Your task to perform on an android device: open app "Duolingo: language lessons" Image 0: 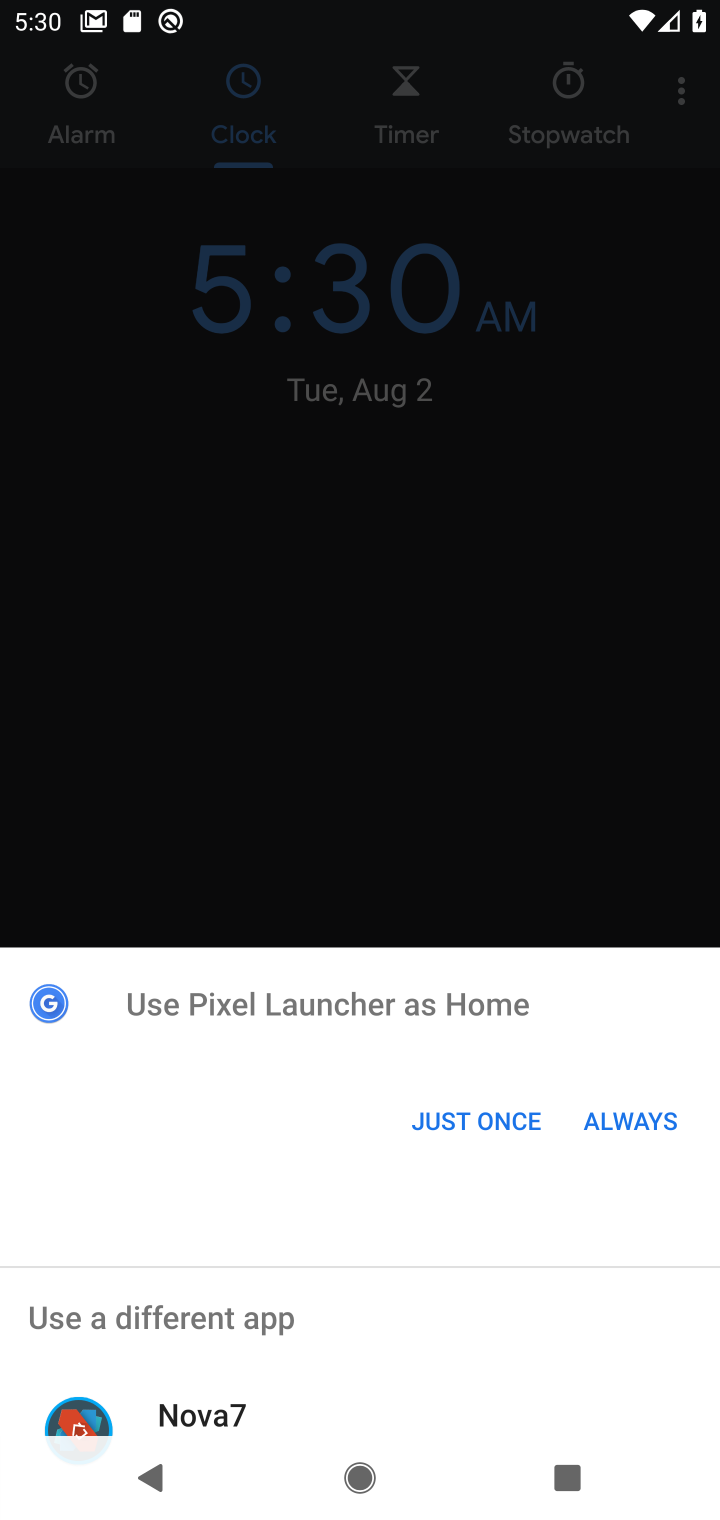
Step 0: drag from (327, 1025) to (407, 591)
Your task to perform on an android device: open app "Duolingo: language lessons" Image 1: 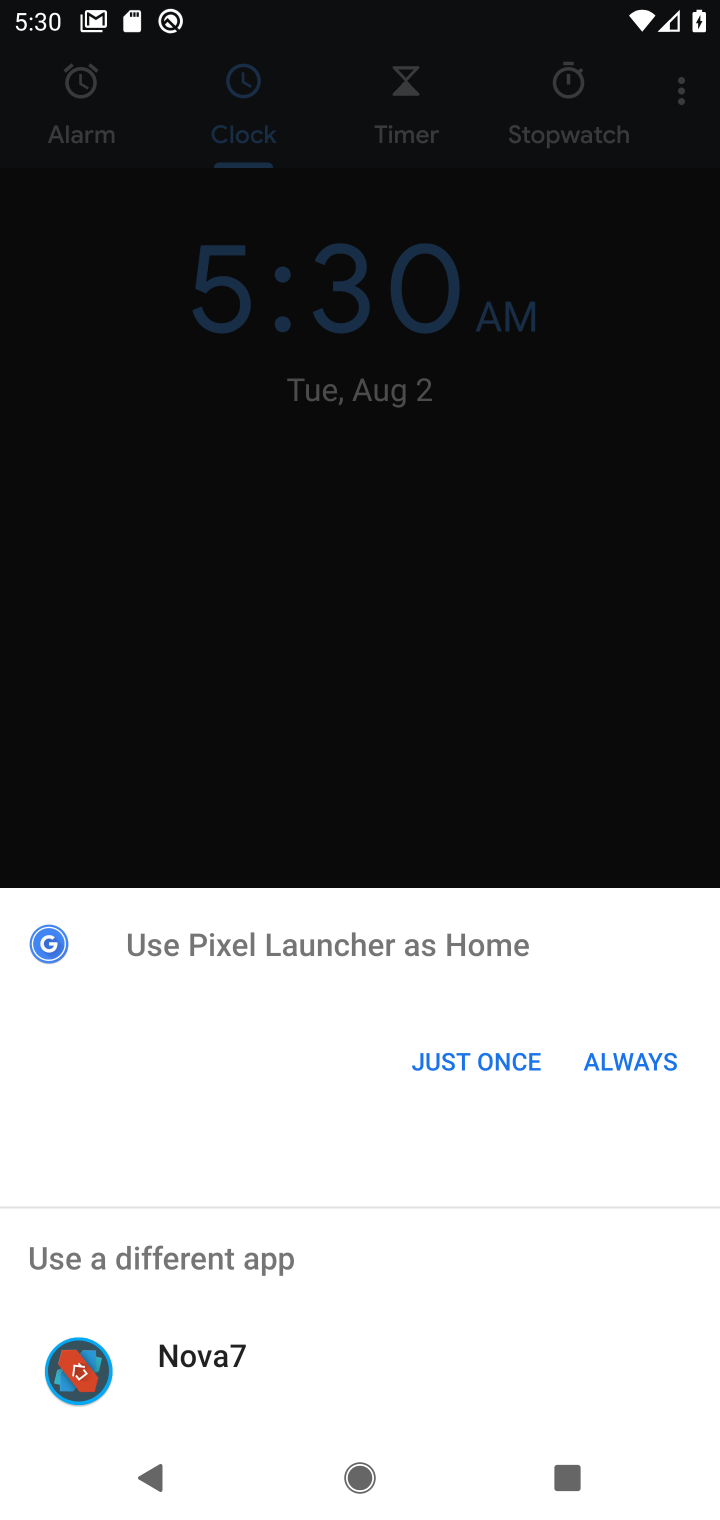
Step 1: press home button
Your task to perform on an android device: open app "Duolingo: language lessons" Image 2: 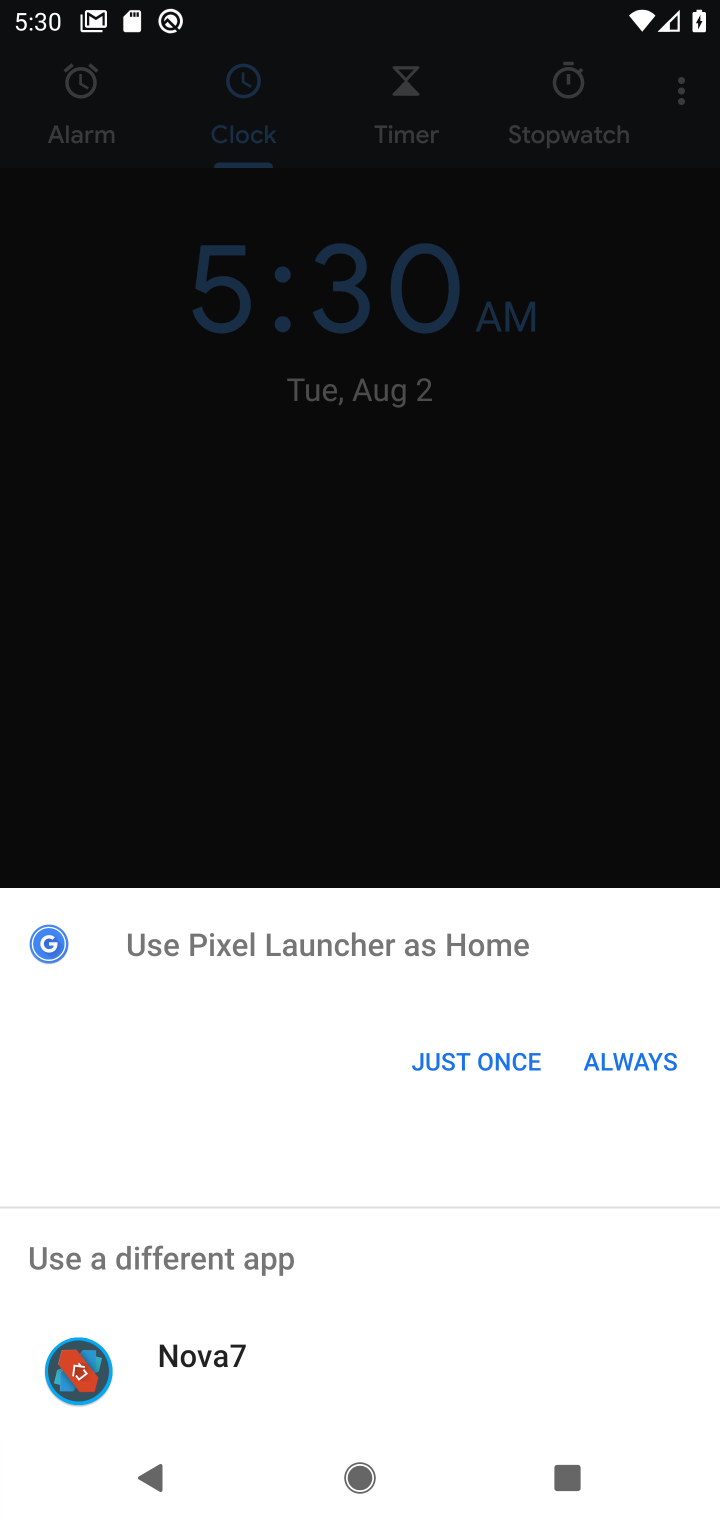
Step 2: press home button
Your task to perform on an android device: open app "Duolingo: language lessons" Image 3: 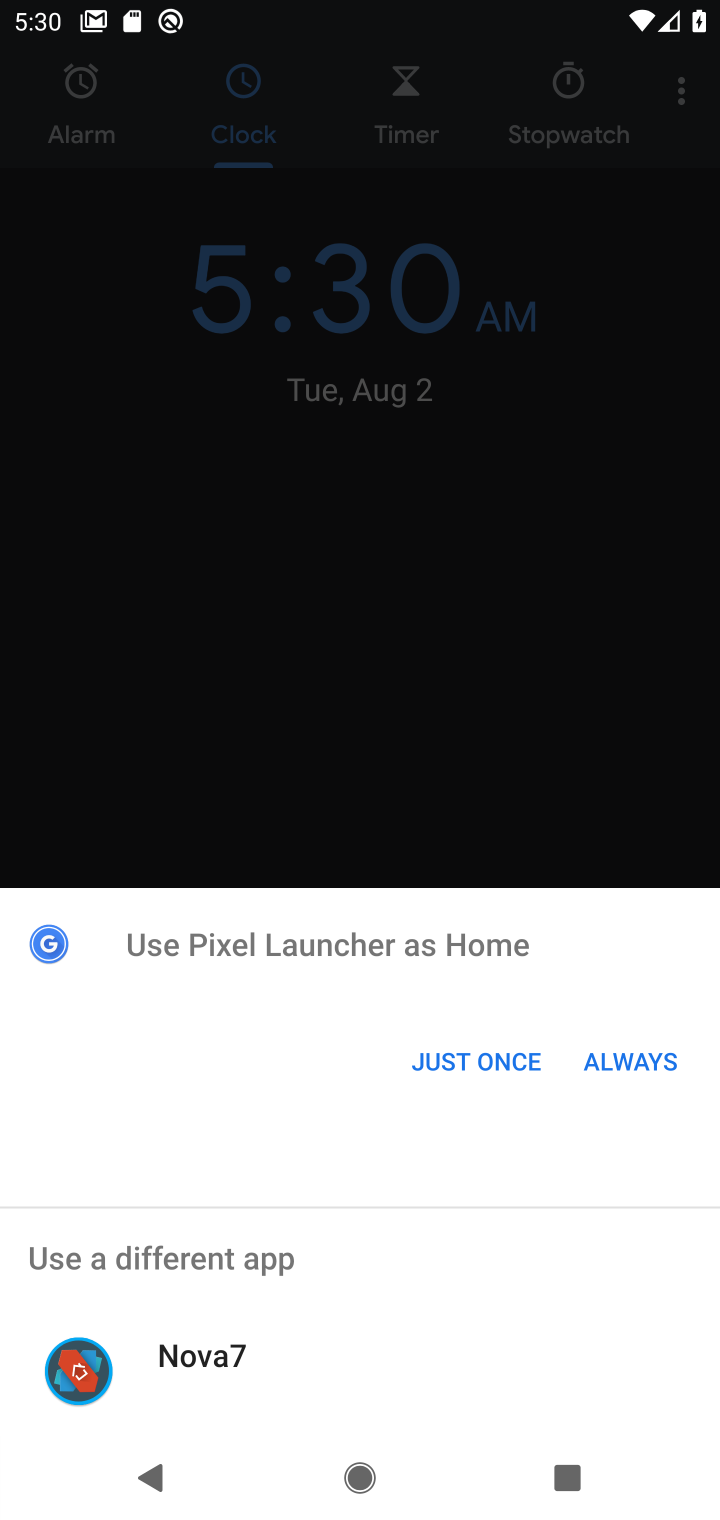
Step 3: drag from (406, 1276) to (481, 674)
Your task to perform on an android device: open app "Duolingo: language lessons" Image 4: 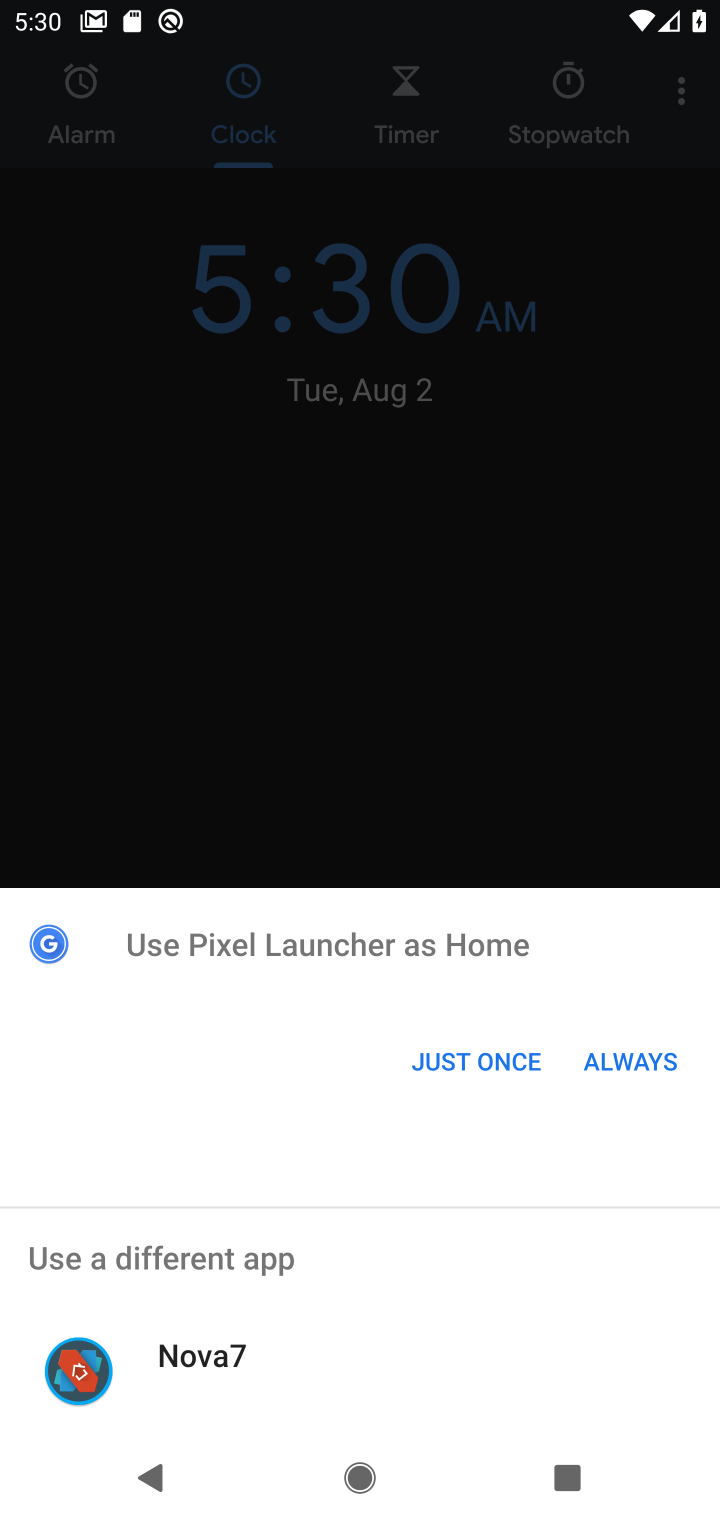
Step 4: press home button
Your task to perform on an android device: open app "Duolingo: language lessons" Image 5: 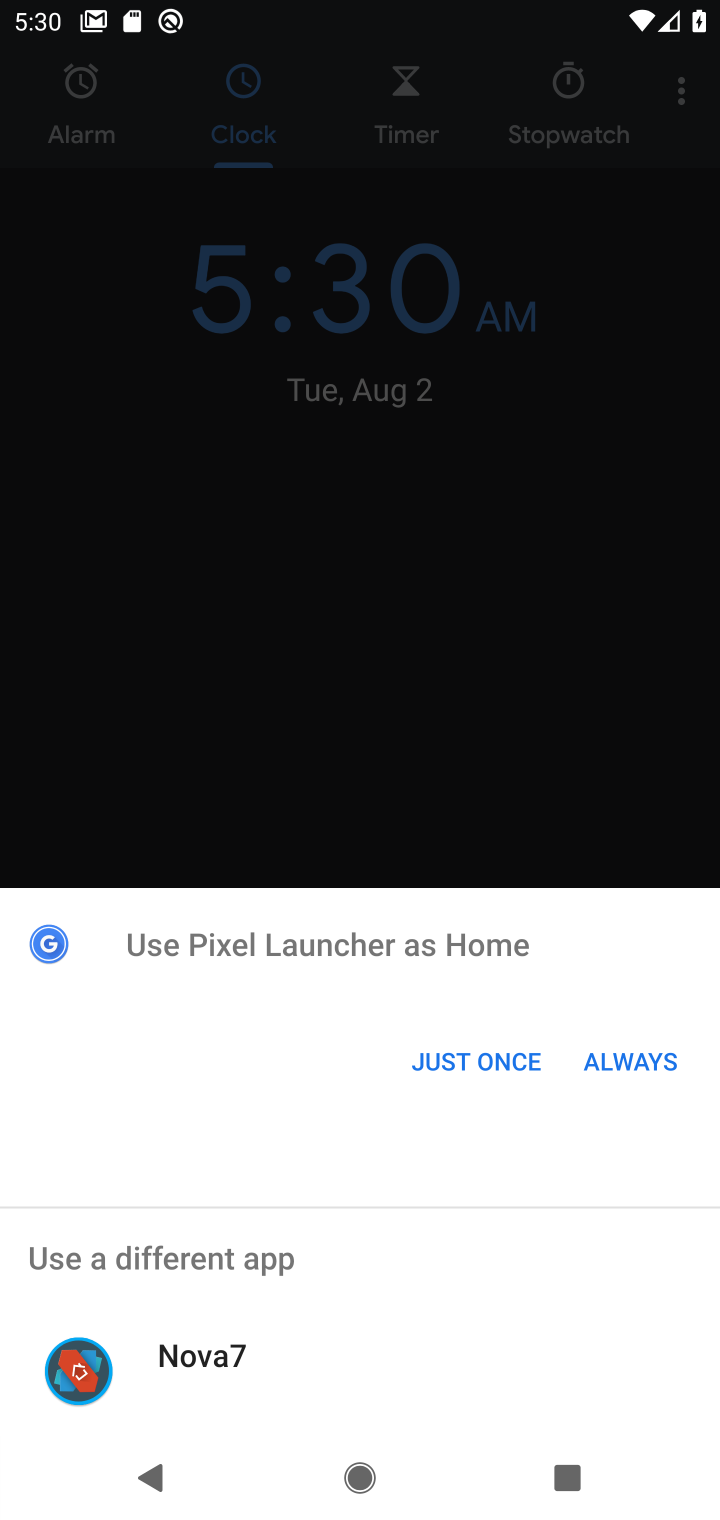
Step 5: press home button
Your task to perform on an android device: open app "Duolingo: language lessons" Image 6: 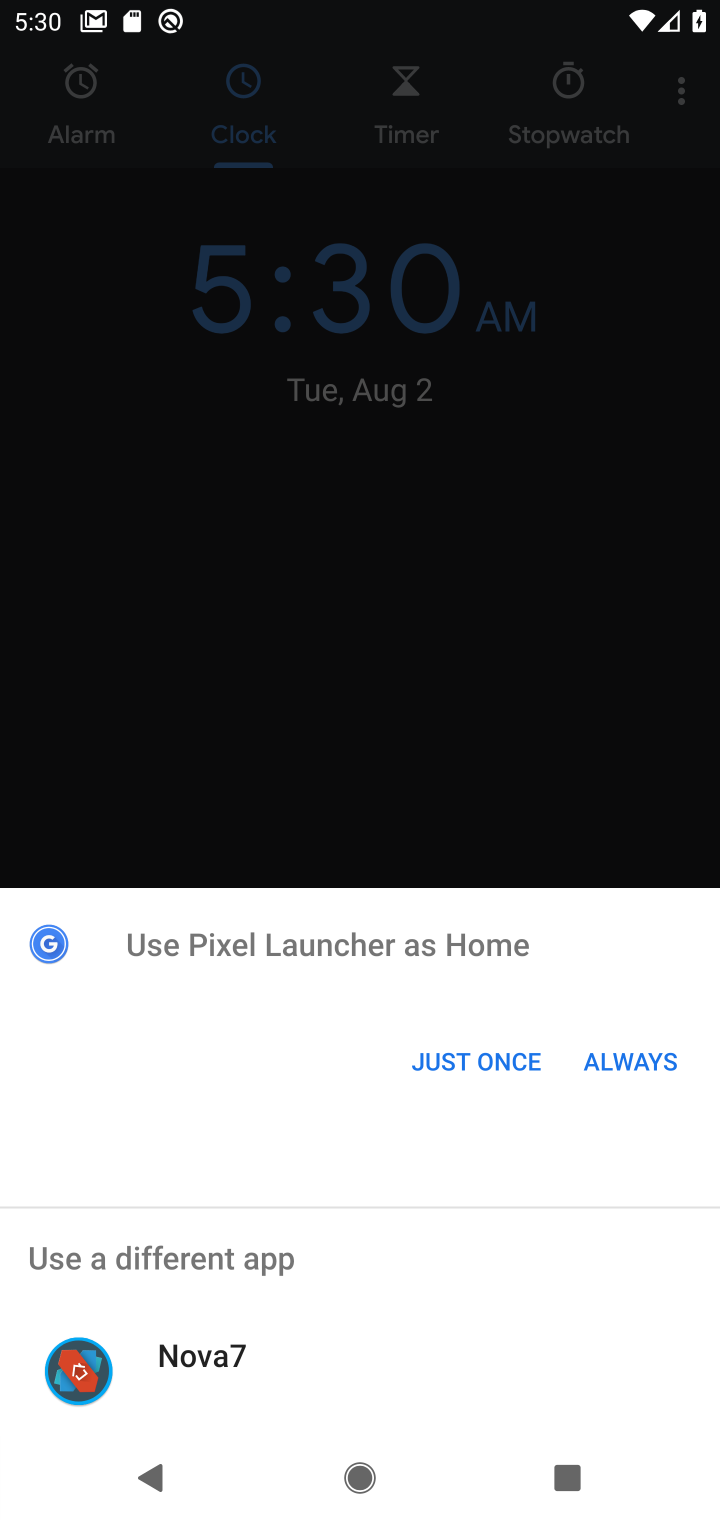
Step 6: drag from (340, 1358) to (457, 148)
Your task to perform on an android device: open app "Duolingo: language lessons" Image 7: 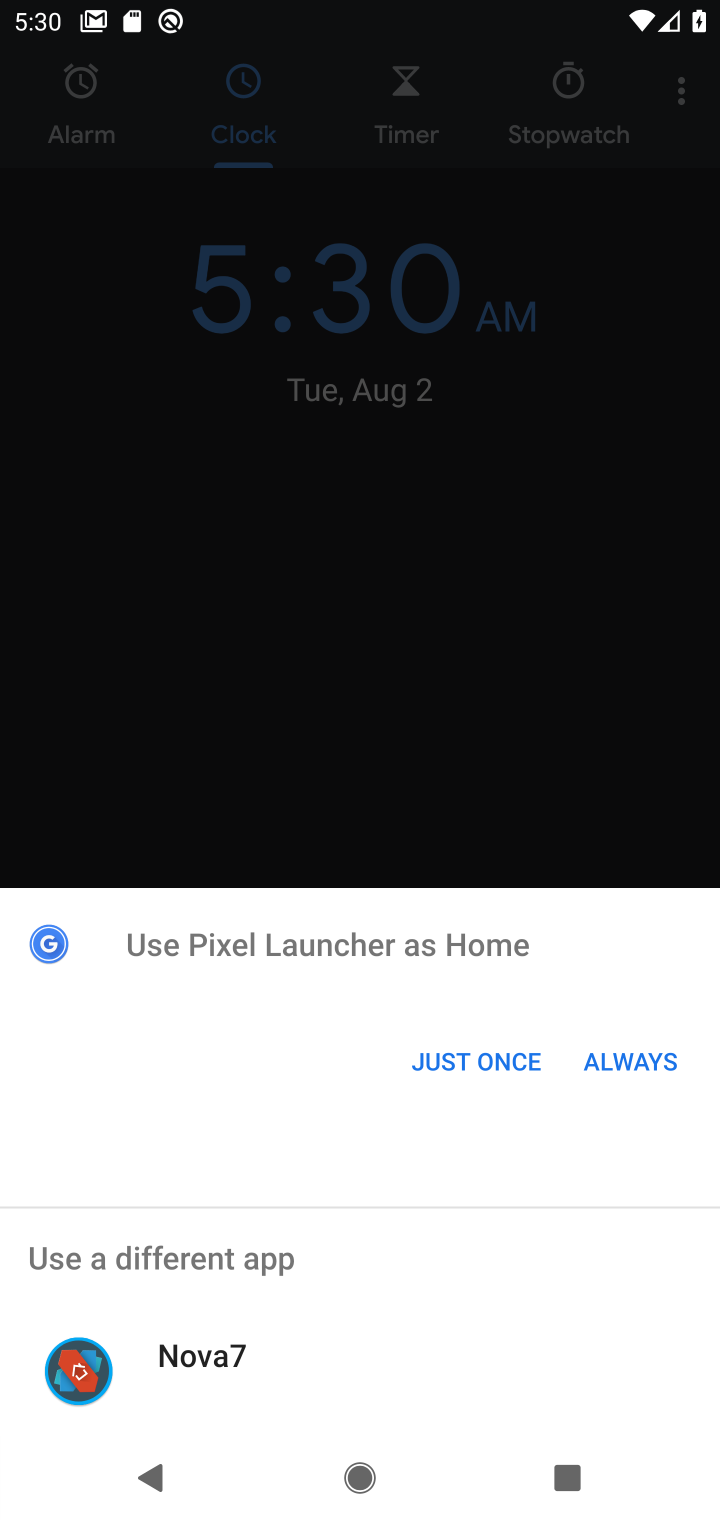
Step 7: press home button
Your task to perform on an android device: open app "Duolingo: language lessons" Image 8: 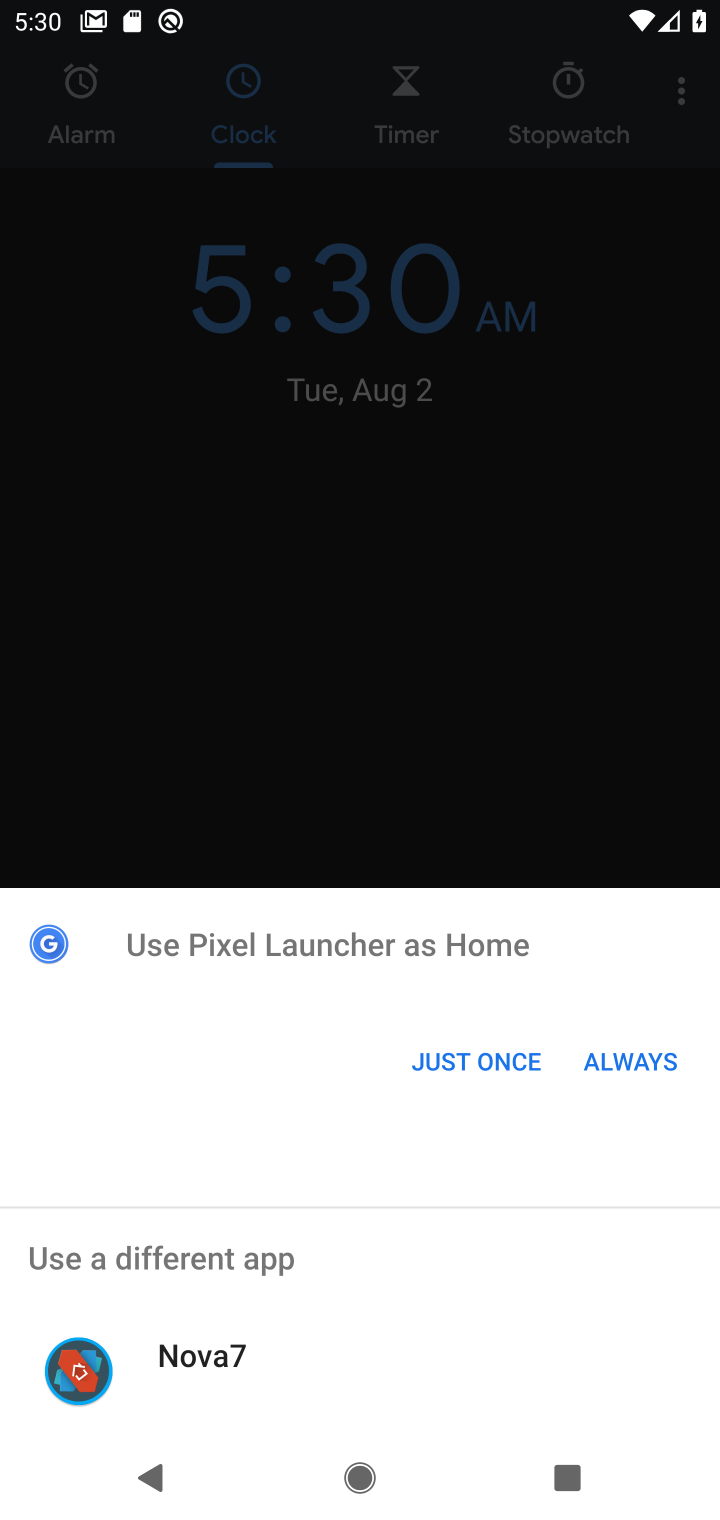
Step 8: press home button
Your task to perform on an android device: open app "Duolingo: language lessons" Image 9: 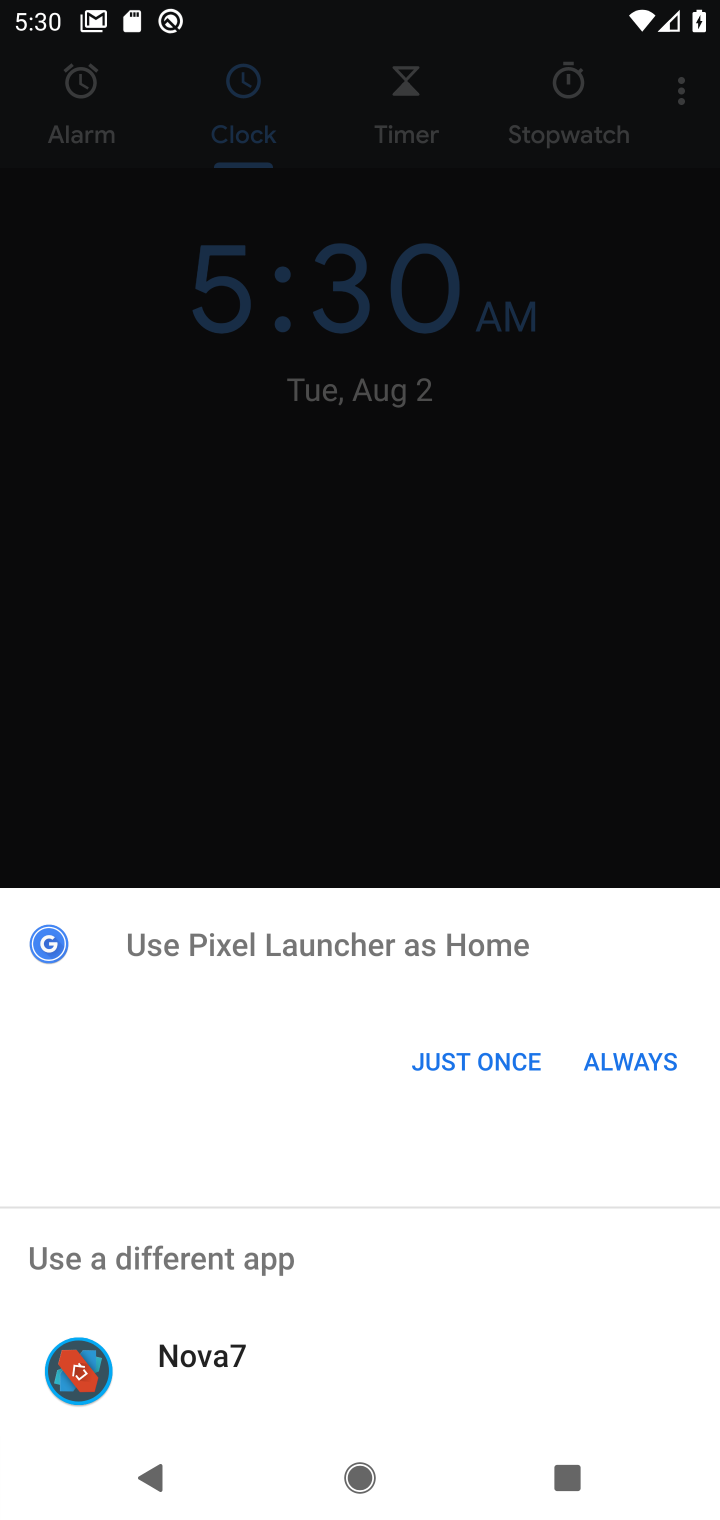
Step 9: press home button
Your task to perform on an android device: open app "Duolingo: language lessons" Image 10: 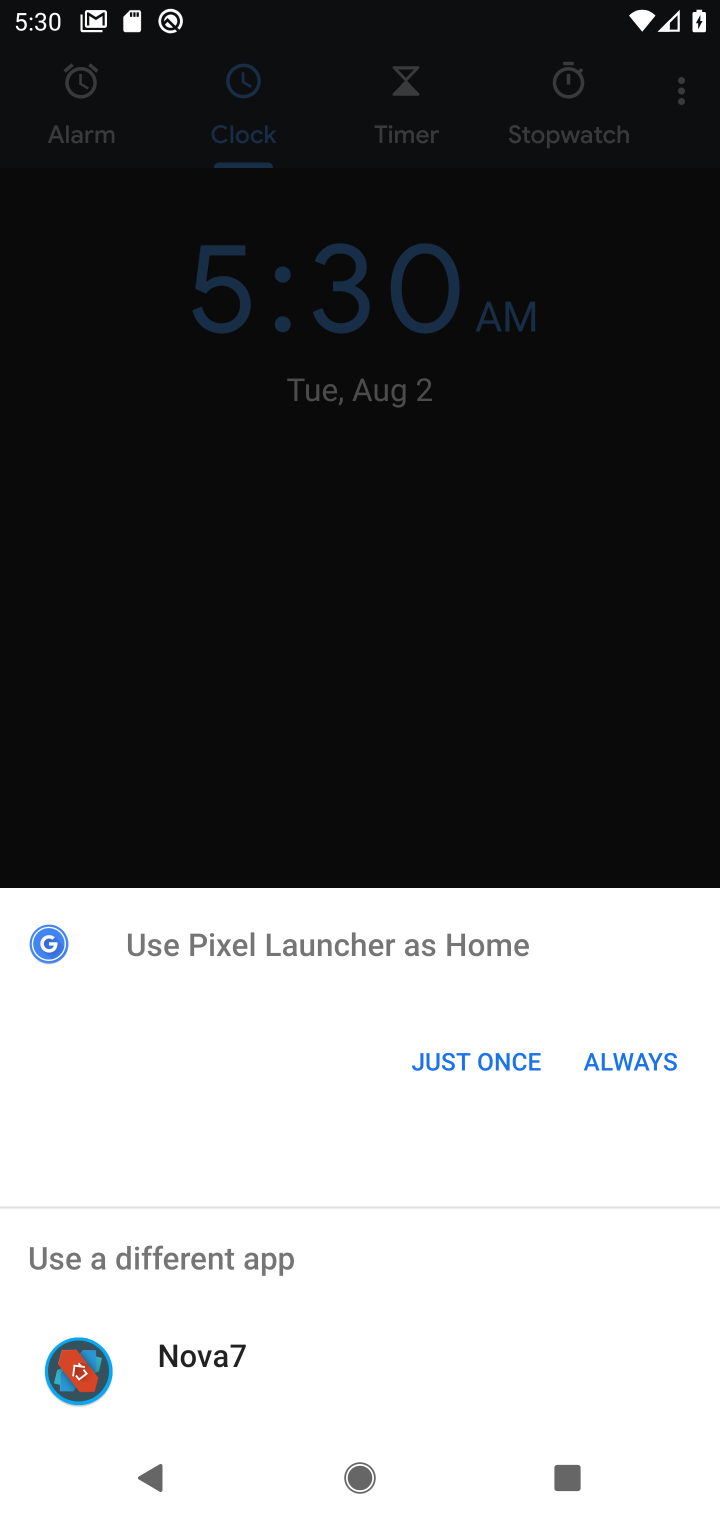
Step 10: click (503, 1069)
Your task to perform on an android device: open app "Duolingo: language lessons" Image 11: 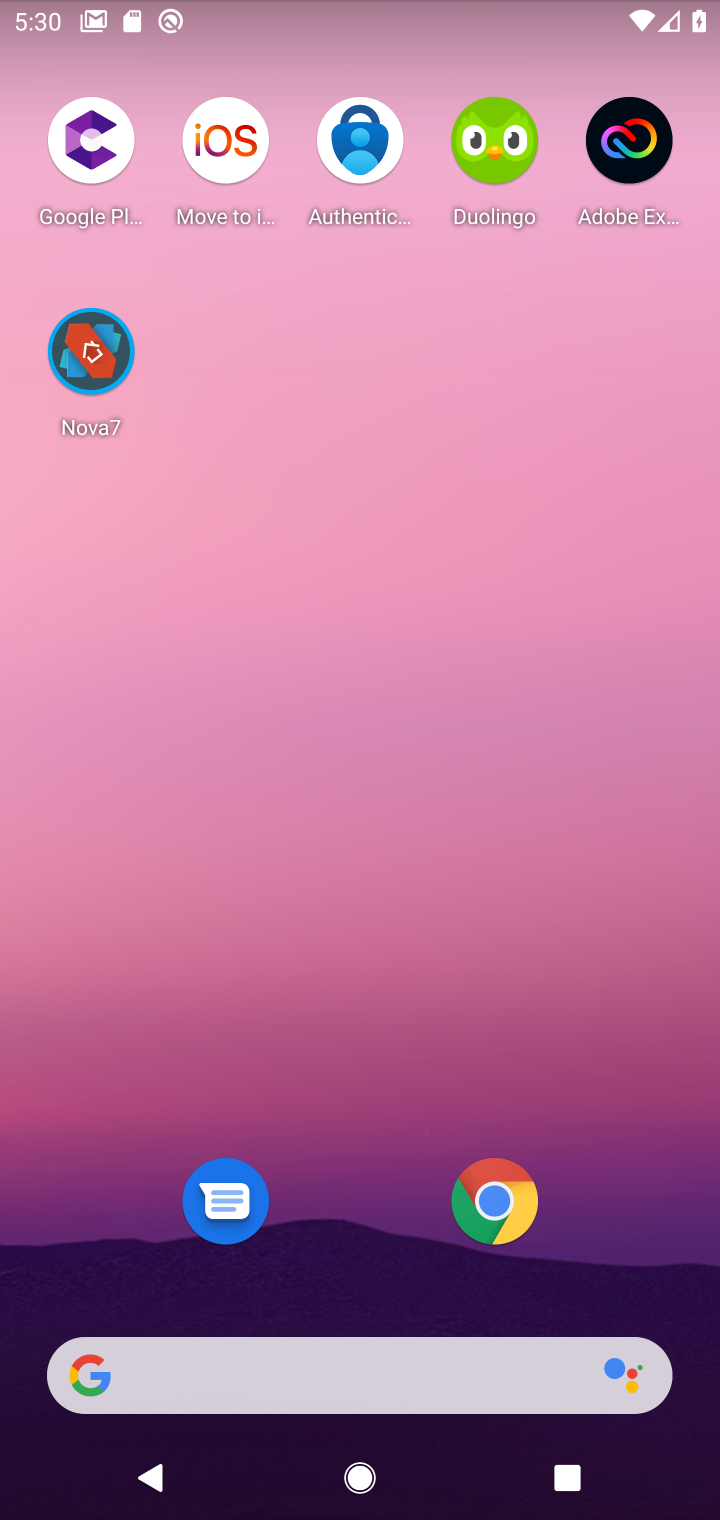
Step 11: press home button
Your task to perform on an android device: open app "Duolingo: language lessons" Image 12: 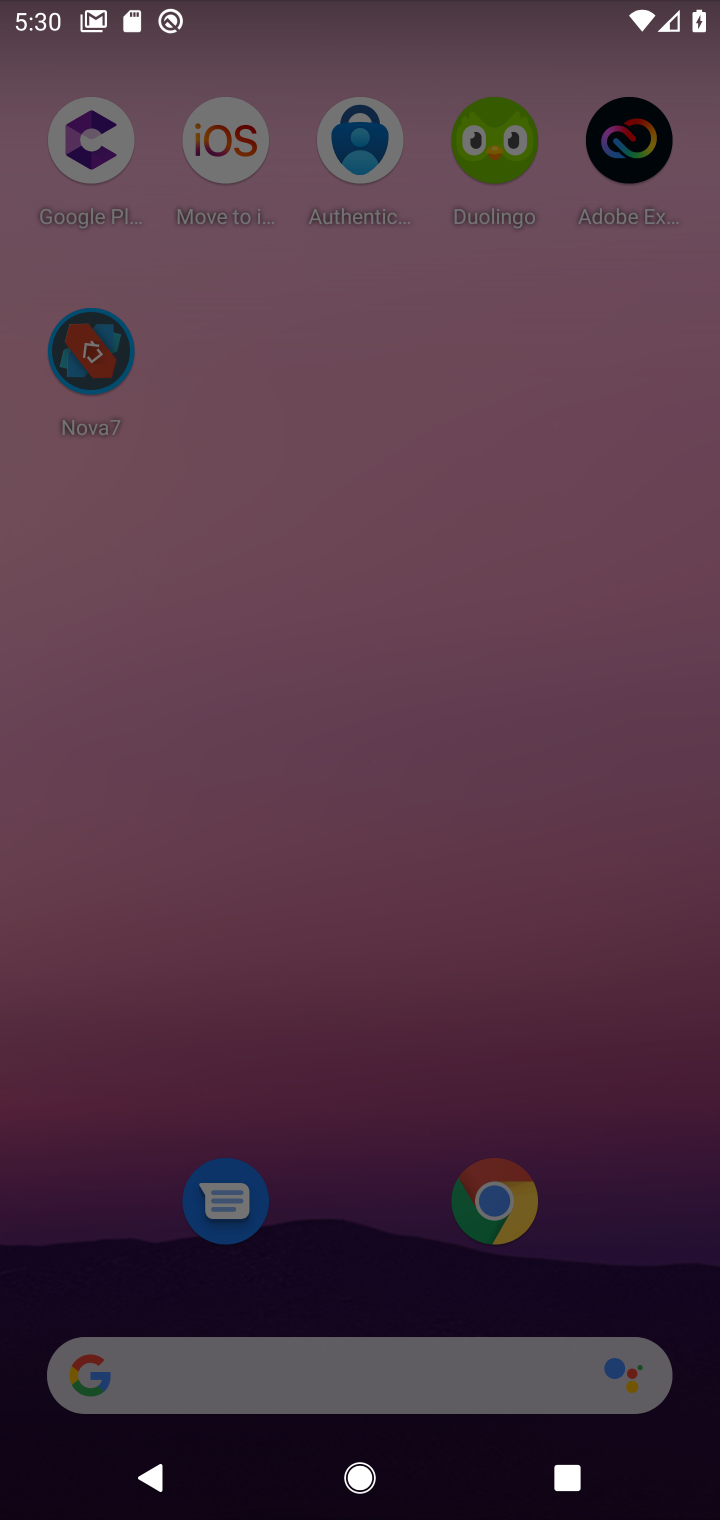
Step 12: drag from (348, 1226) to (461, 252)
Your task to perform on an android device: open app "Duolingo: language lessons" Image 13: 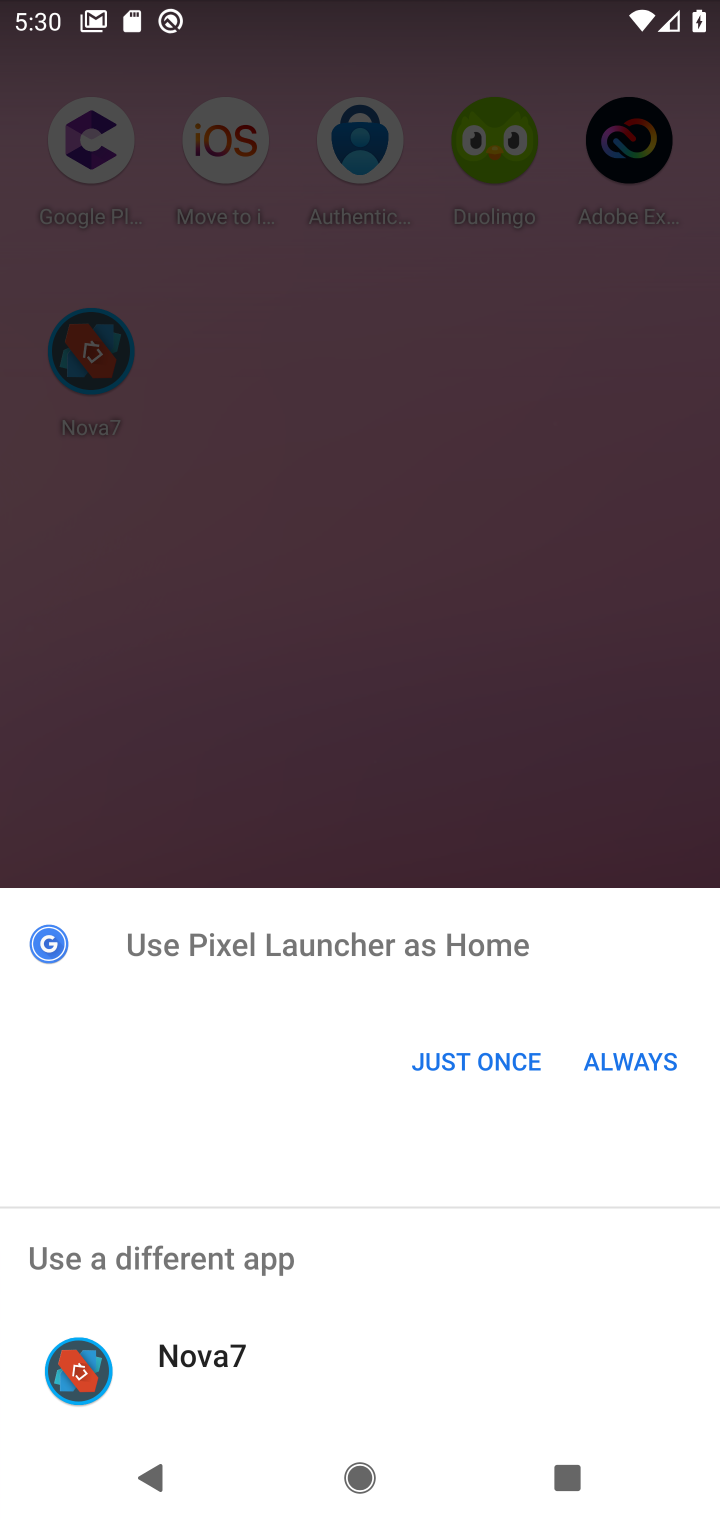
Step 13: click (444, 656)
Your task to perform on an android device: open app "Duolingo: language lessons" Image 14: 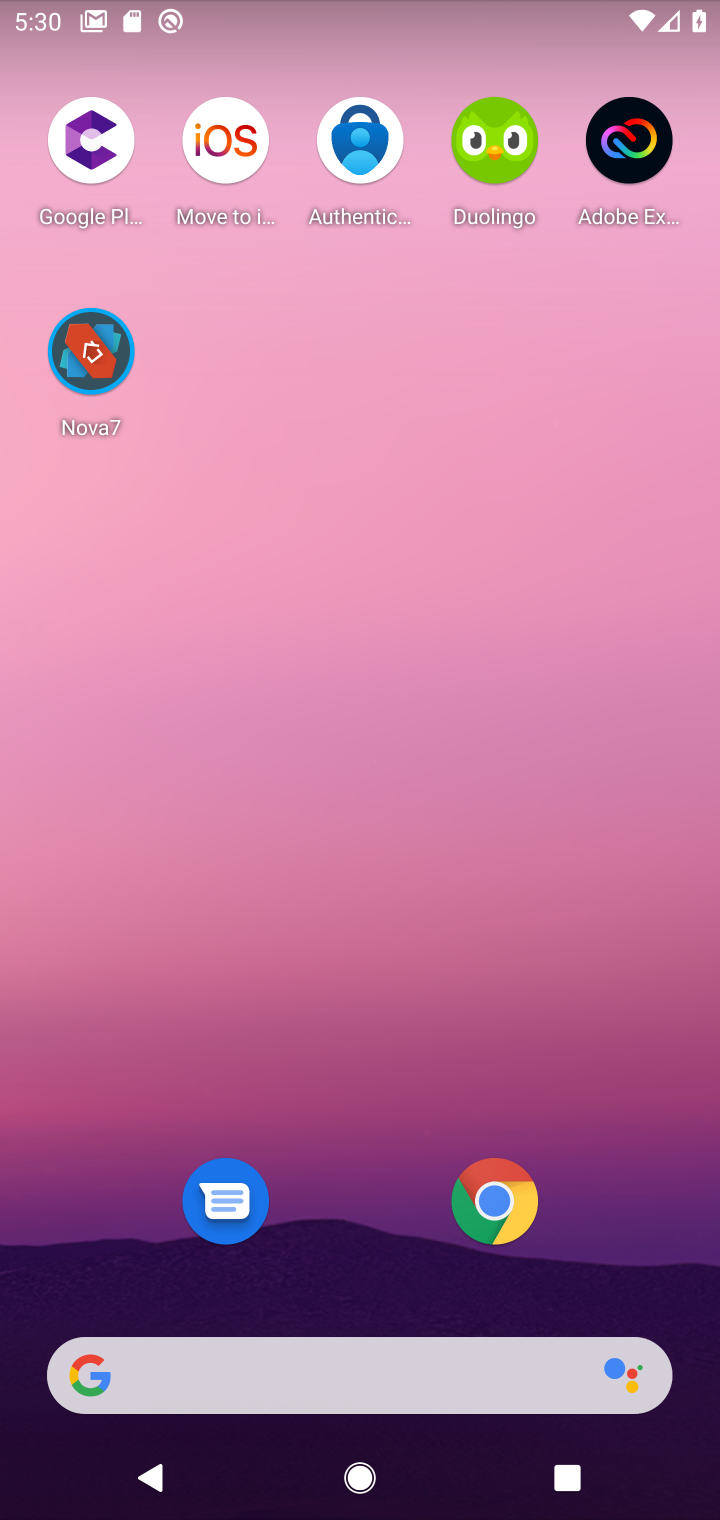
Step 14: drag from (308, 1159) to (509, 137)
Your task to perform on an android device: open app "Duolingo: language lessons" Image 15: 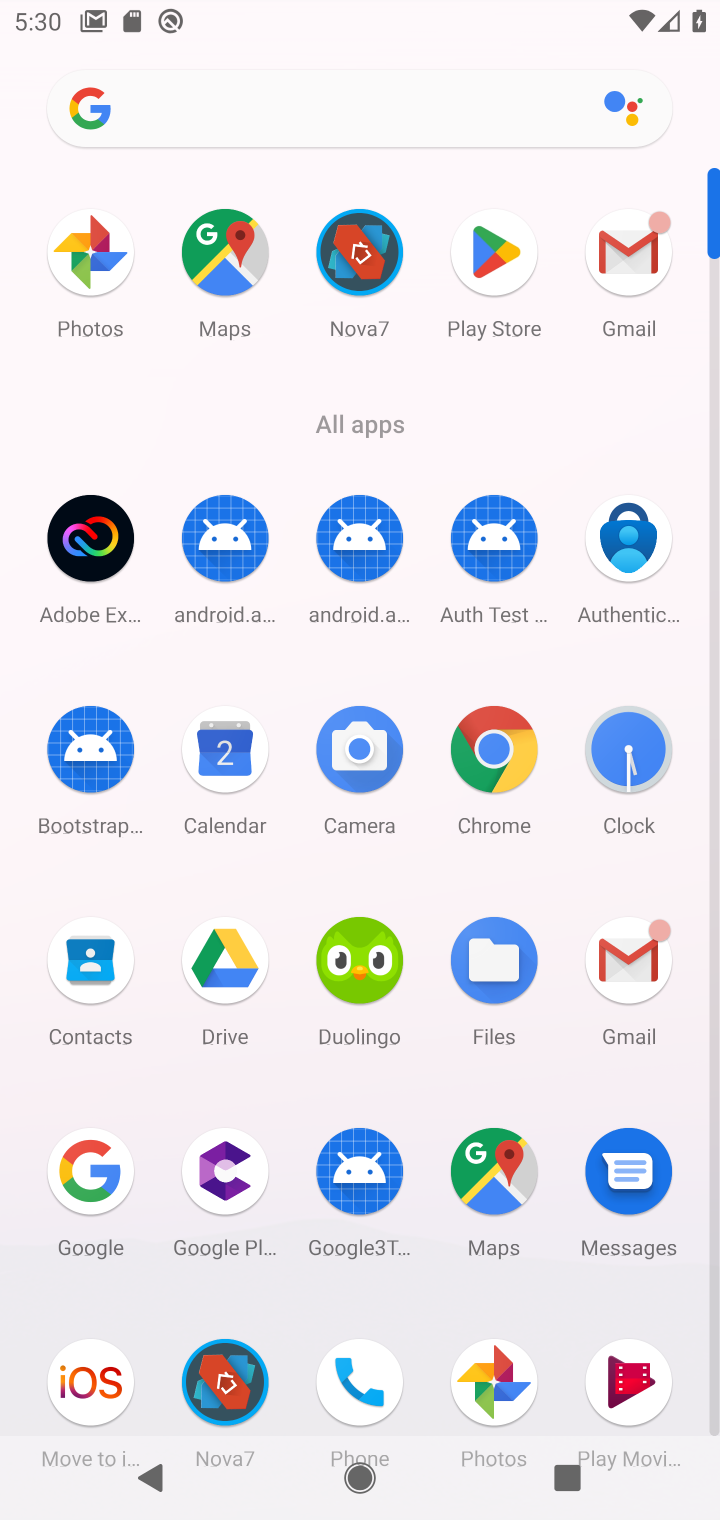
Step 15: click (505, 249)
Your task to perform on an android device: open app "Duolingo: language lessons" Image 16: 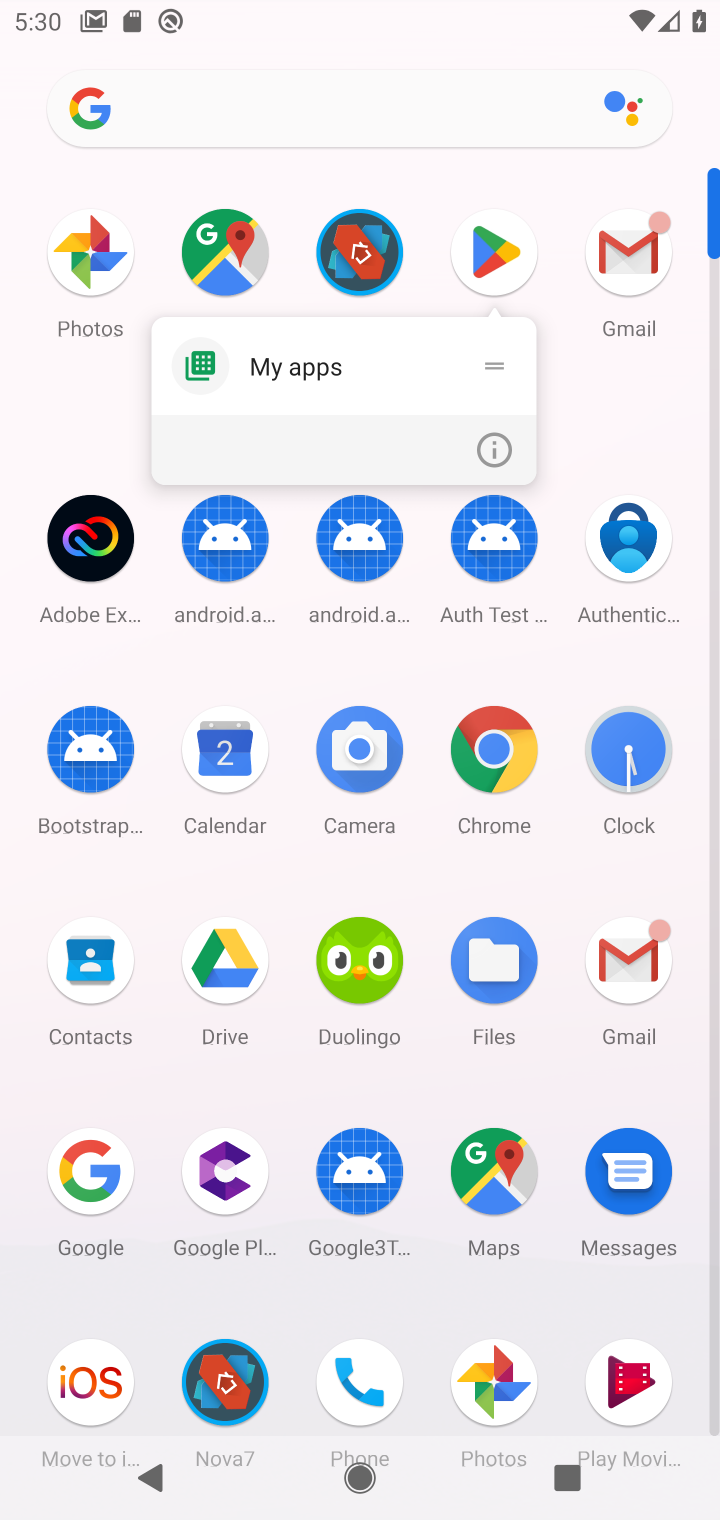
Step 16: click (497, 460)
Your task to perform on an android device: open app "Duolingo: language lessons" Image 17: 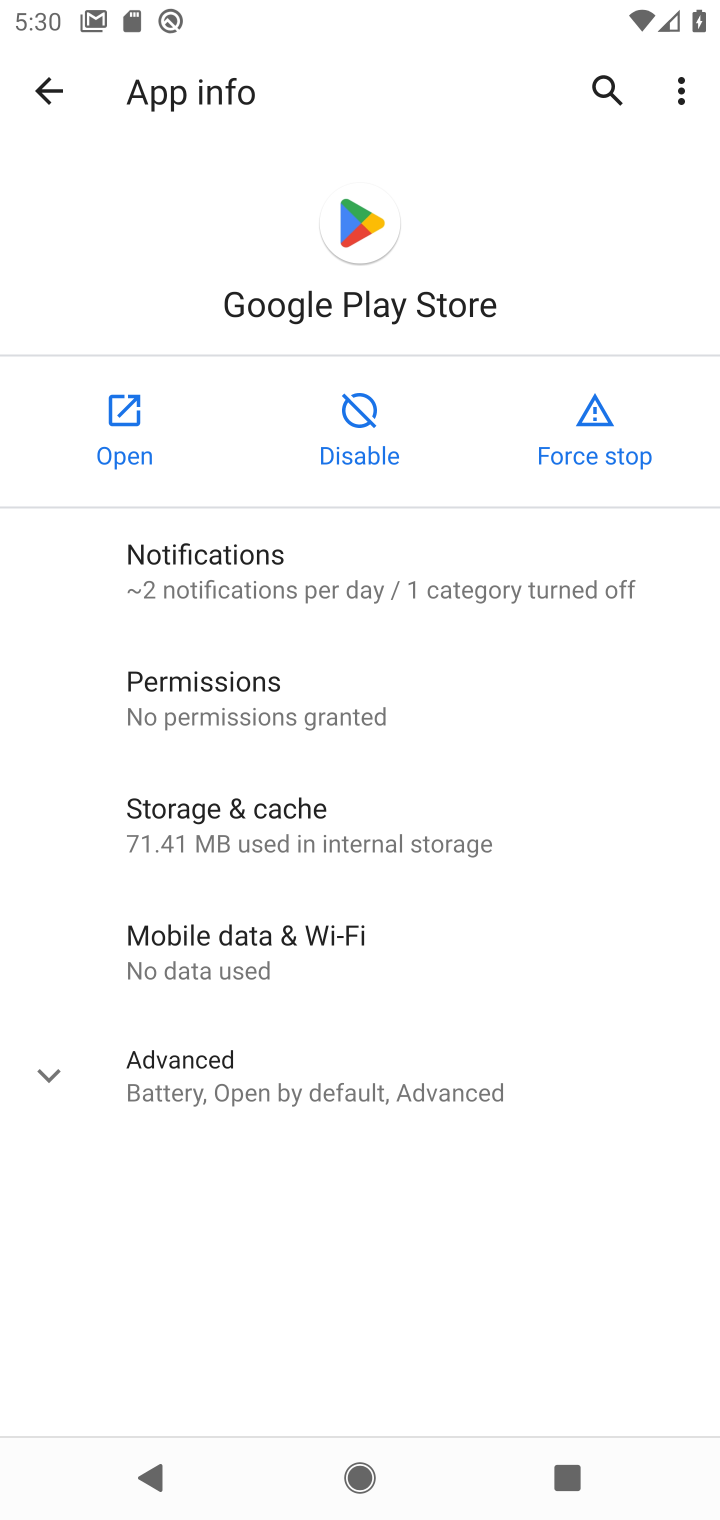
Step 17: click (115, 409)
Your task to perform on an android device: open app "Duolingo: language lessons" Image 18: 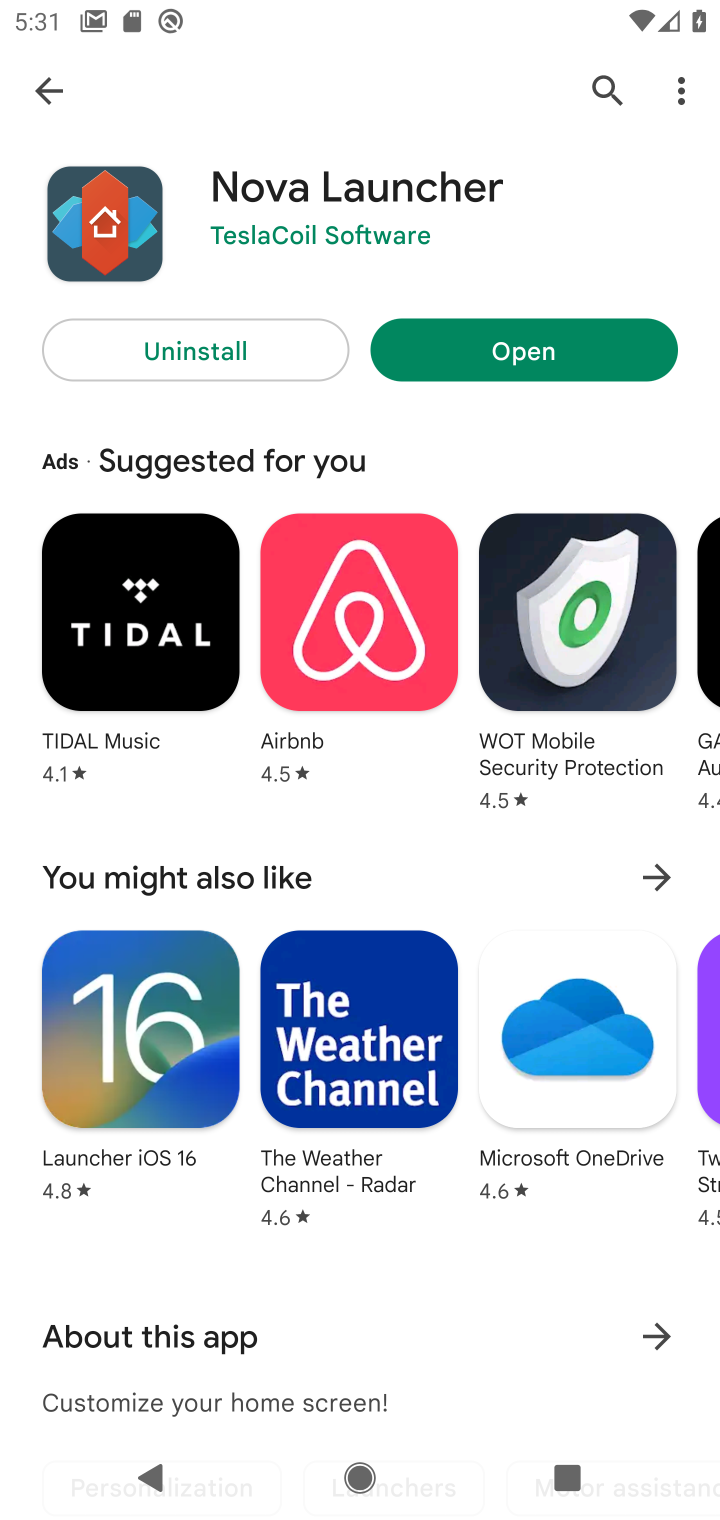
Step 18: click (600, 93)
Your task to perform on an android device: open app "Duolingo: language lessons" Image 19: 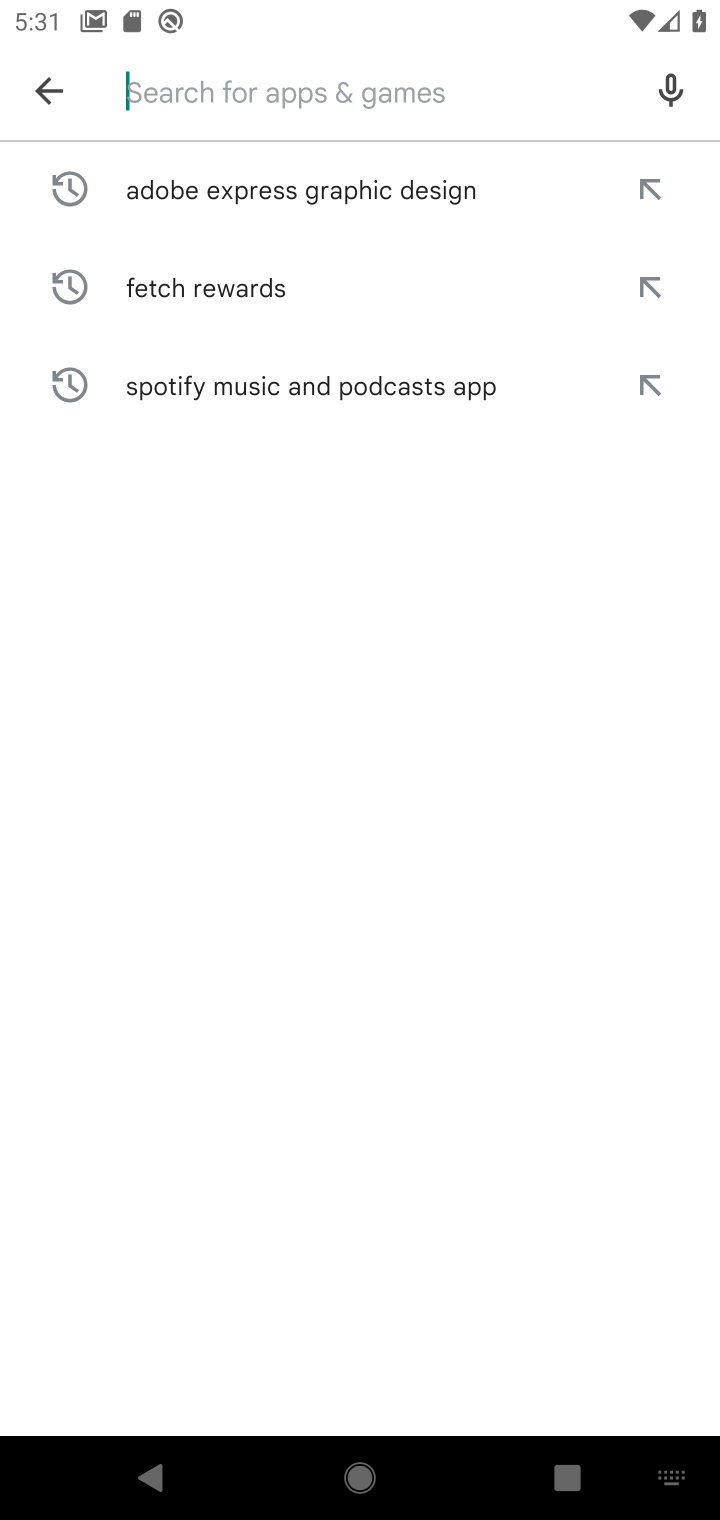
Step 19: type "Duolingo: language lessons"
Your task to perform on an android device: open app "Duolingo: language lessons" Image 20: 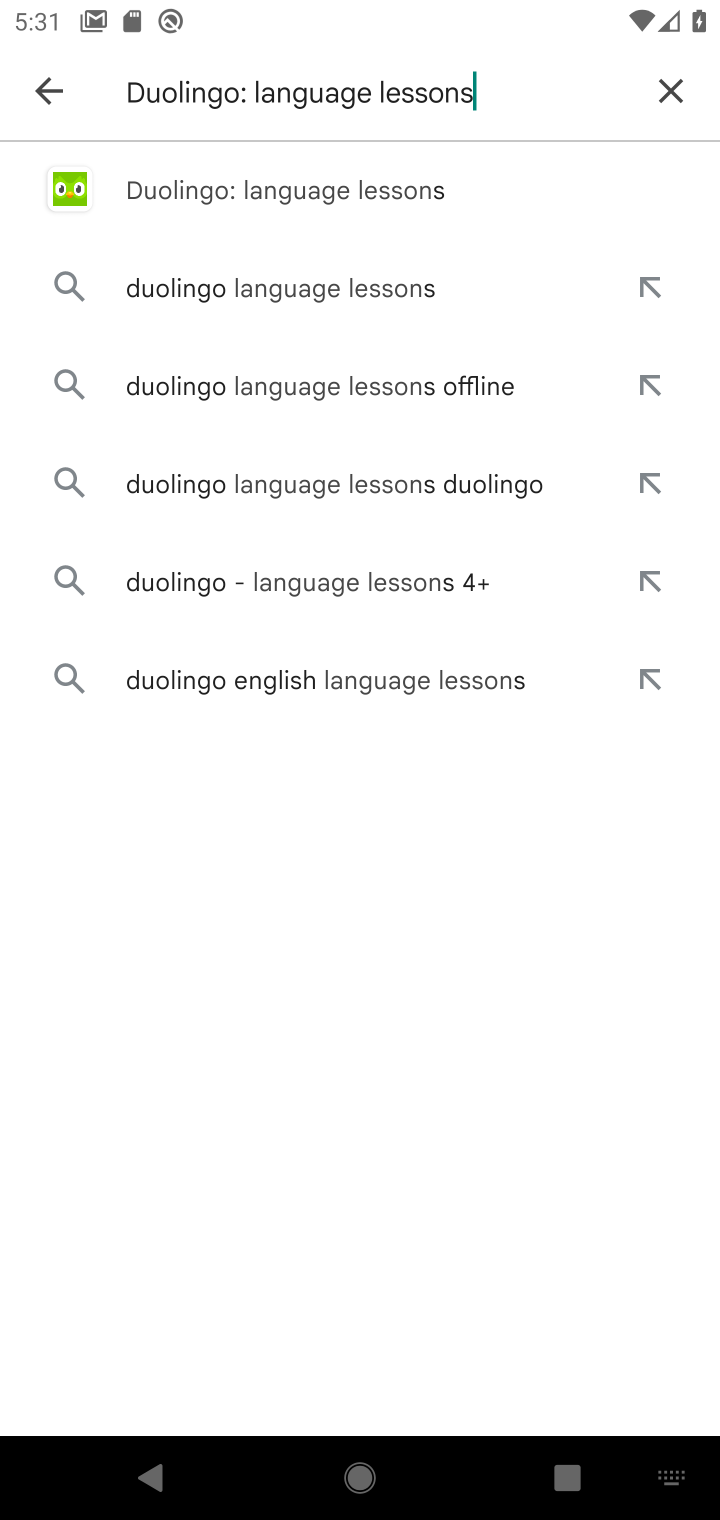
Step 20: type ""
Your task to perform on an android device: open app "Duolingo: language lessons" Image 21: 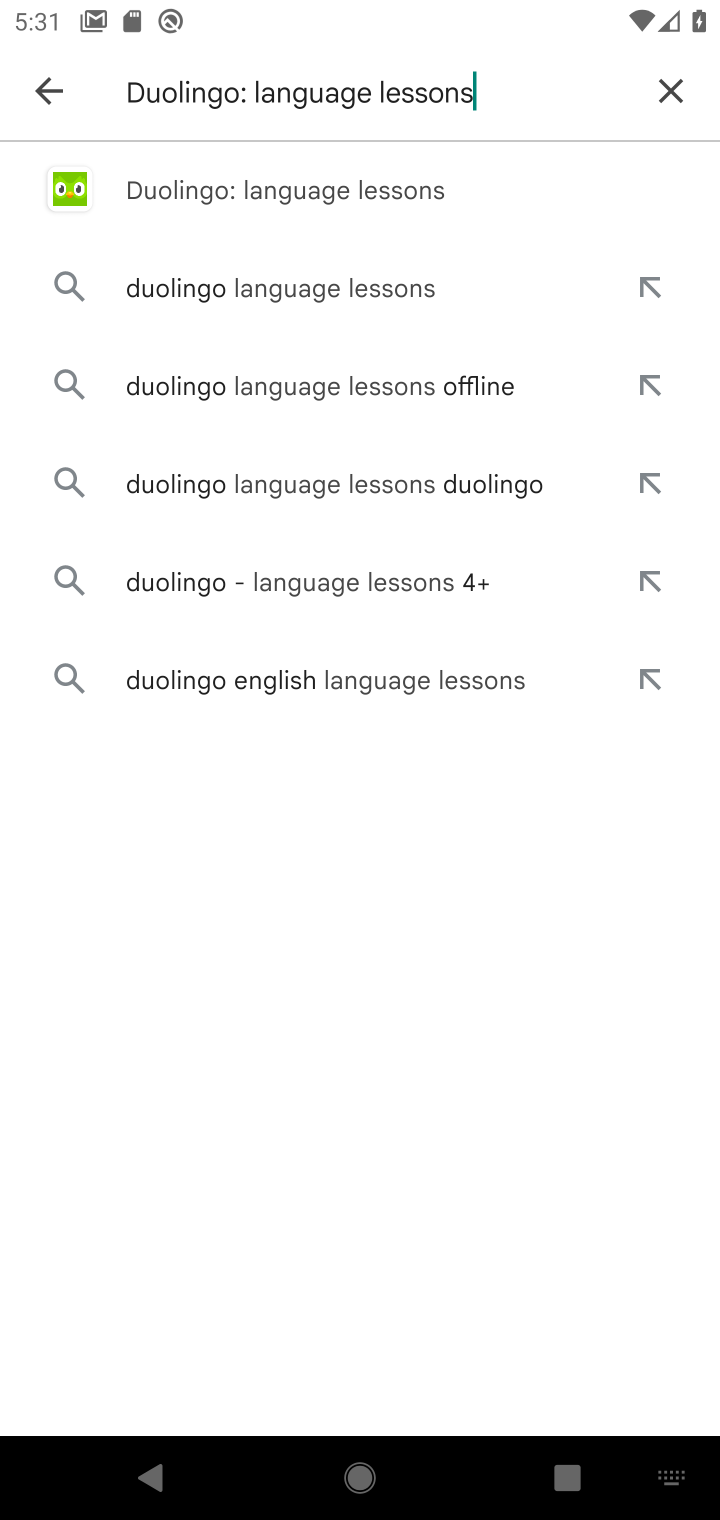
Step 21: click (156, 191)
Your task to perform on an android device: open app "Duolingo: language lessons" Image 22: 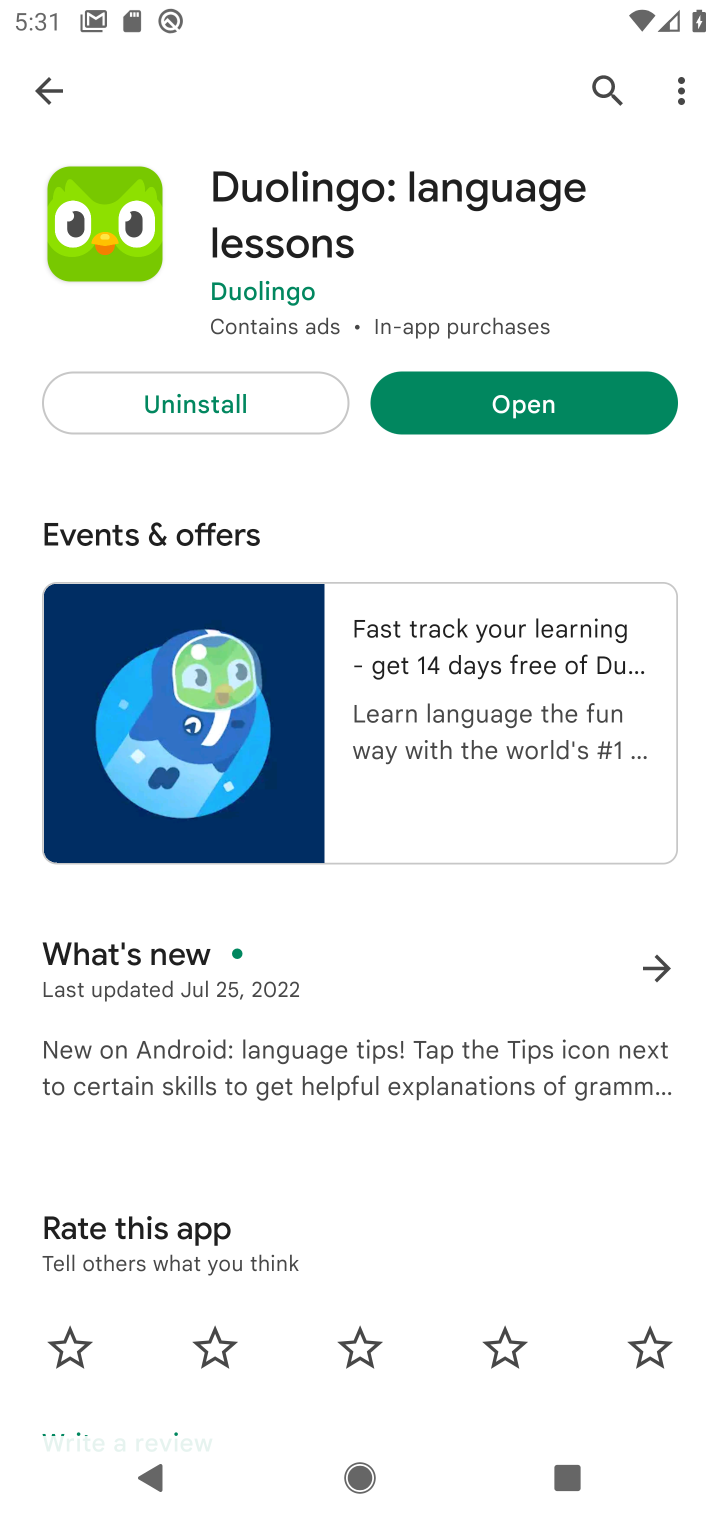
Step 22: click (444, 389)
Your task to perform on an android device: open app "Duolingo: language lessons" Image 23: 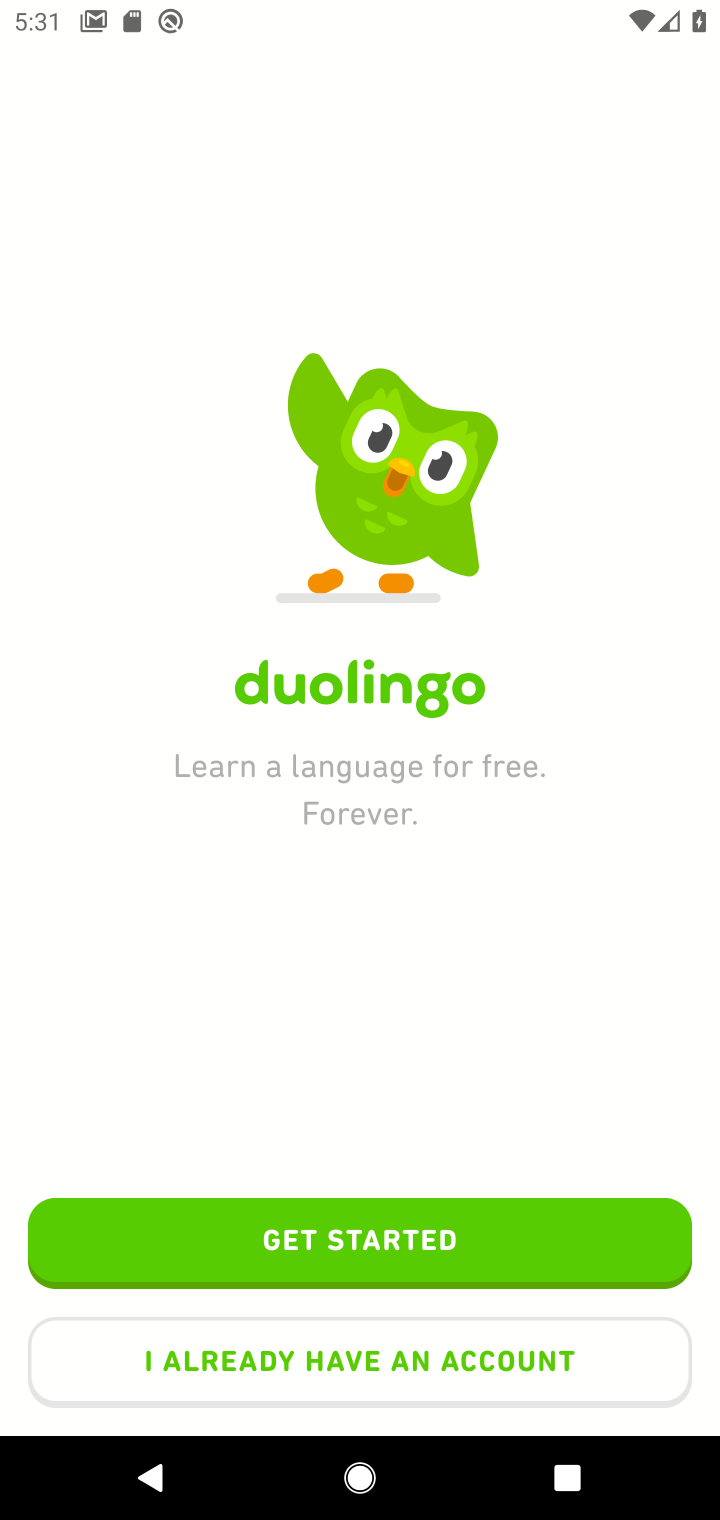
Step 23: task complete